Your task to perform on an android device: Open Chrome and go to the settings page Image 0: 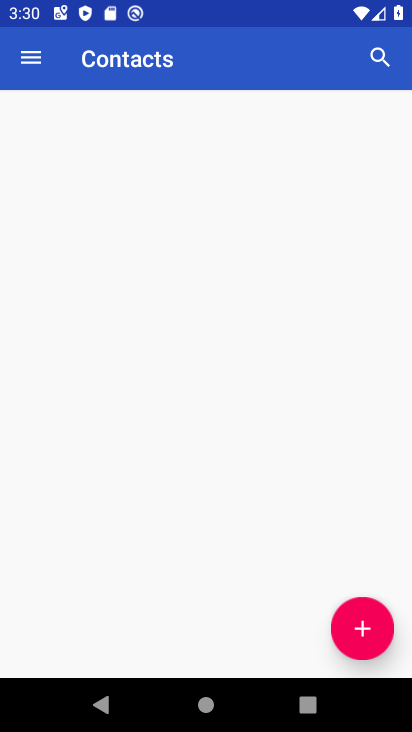
Step 0: press home button
Your task to perform on an android device: Open Chrome and go to the settings page Image 1: 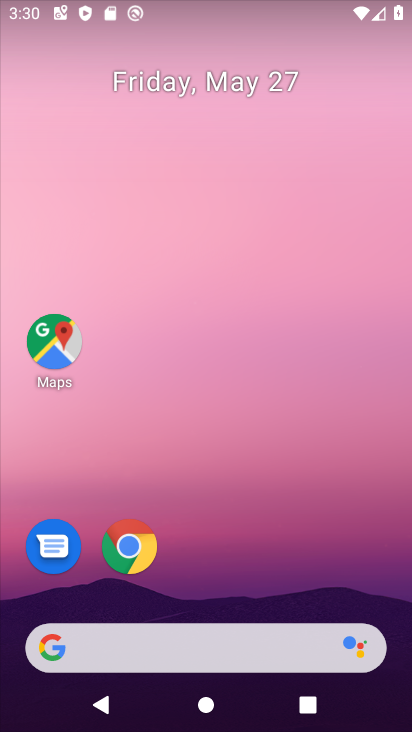
Step 1: click (133, 539)
Your task to perform on an android device: Open Chrome and go to the settings page Image 2: 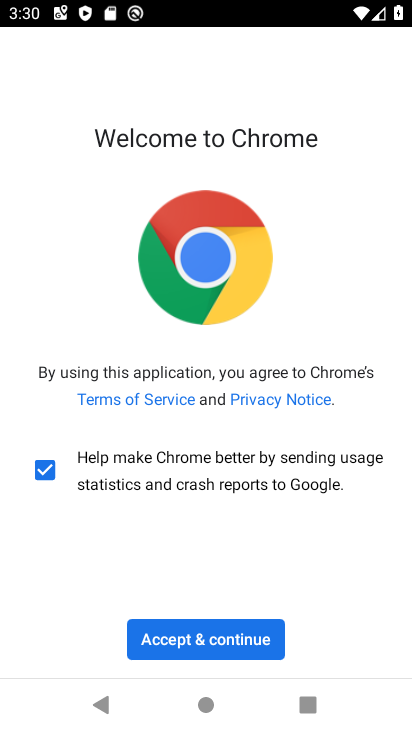
Step 2: click (226, 639)
Your task to perform on an android device: Open Chrome and go to the settings page Image 3: 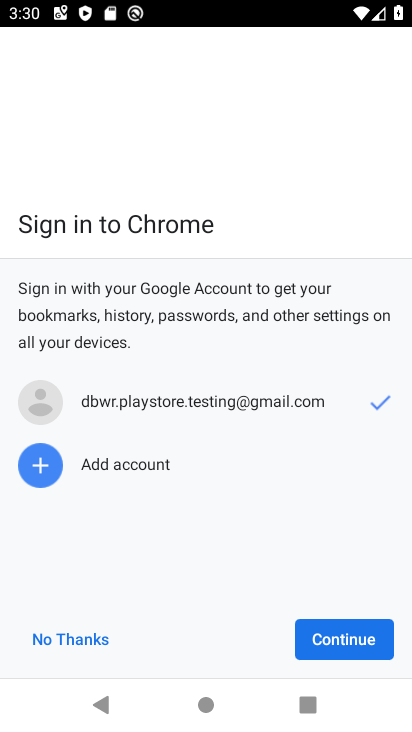
Step 3: click (332, 638)
Your task to perform on an android device: Open Chrome and go to the settings page Image 4: 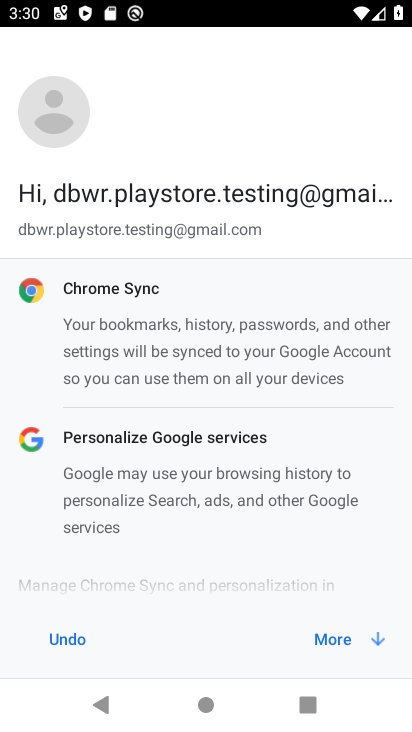
Step 4: click (328, 636)
Your task to perform on an android device: Open Chrome and go to the settings page Image 5: 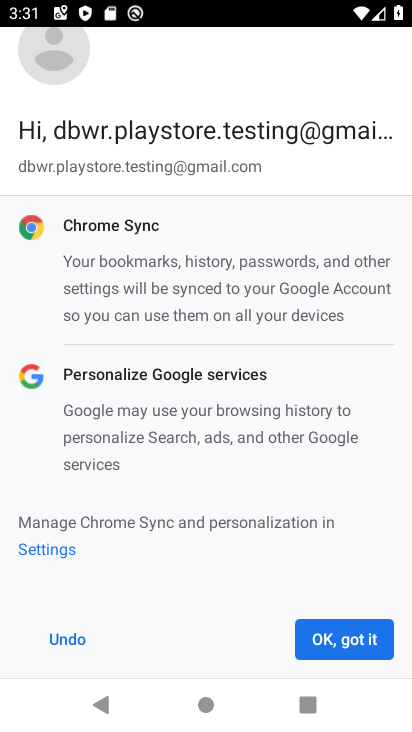
Step 5: click (328, 636)
Your task to perform on an android device: Open Chrome and go to the settings page Image 6: 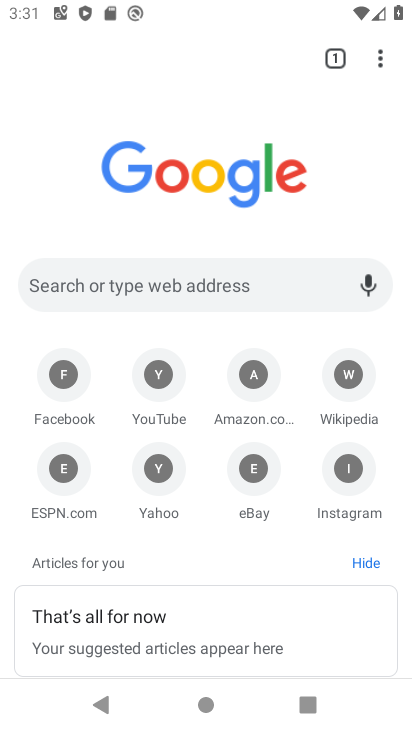
Step 6: click (382, 54)
Your task to perform on an android device: Open Chrome and go to the settings page Image 7: 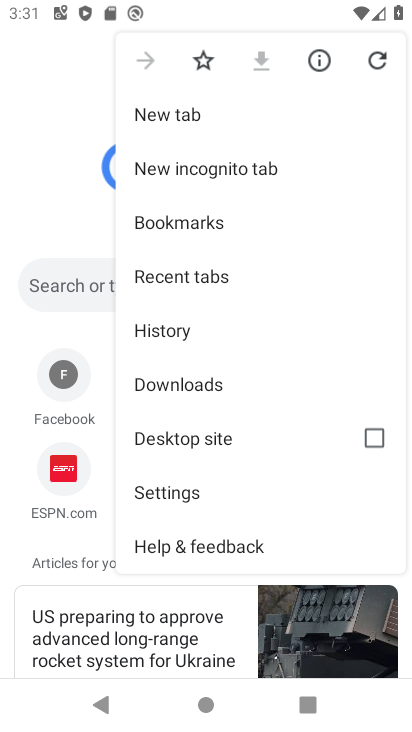
Step 7: click (151, 485)
Your task to perform on an android device: Open Chrome and go to the settings page Image 8: 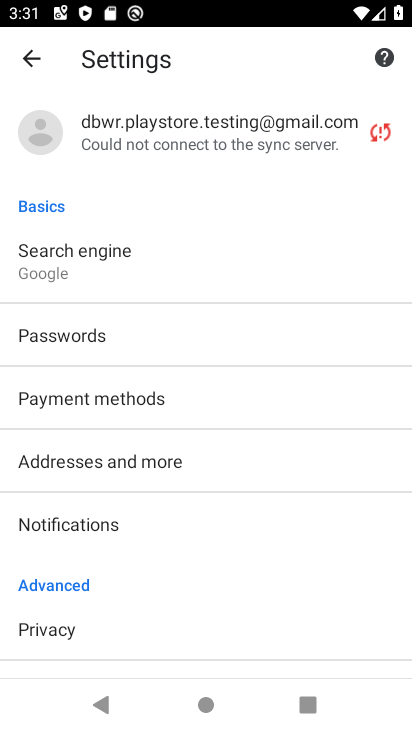
Step 8: task complete